Your task to perform on an android device: show emergency info Image 0: 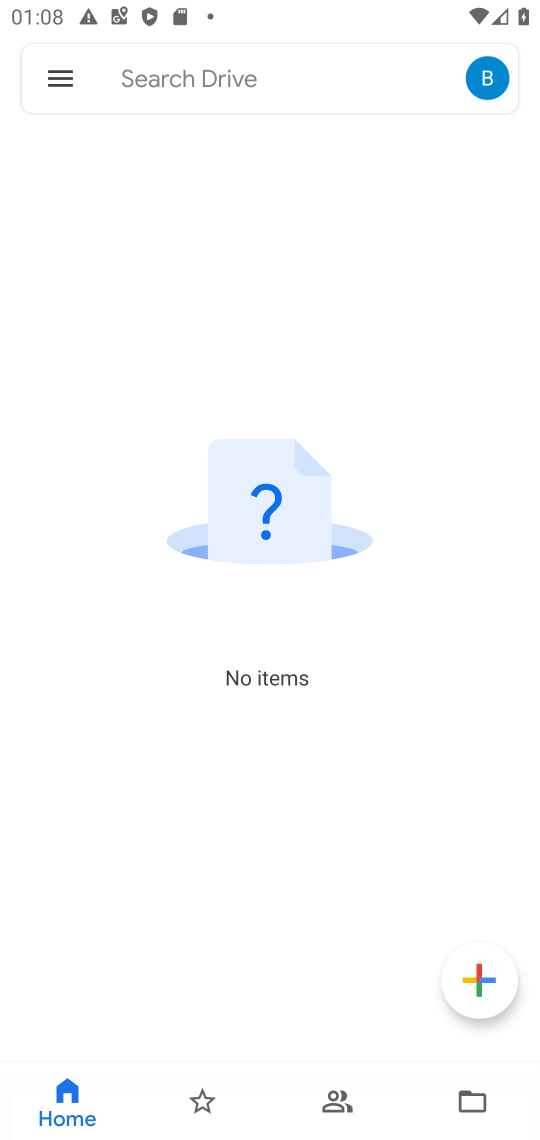
Step 0: press home button
Your task to perform on an android device: show emergency info Image 1: 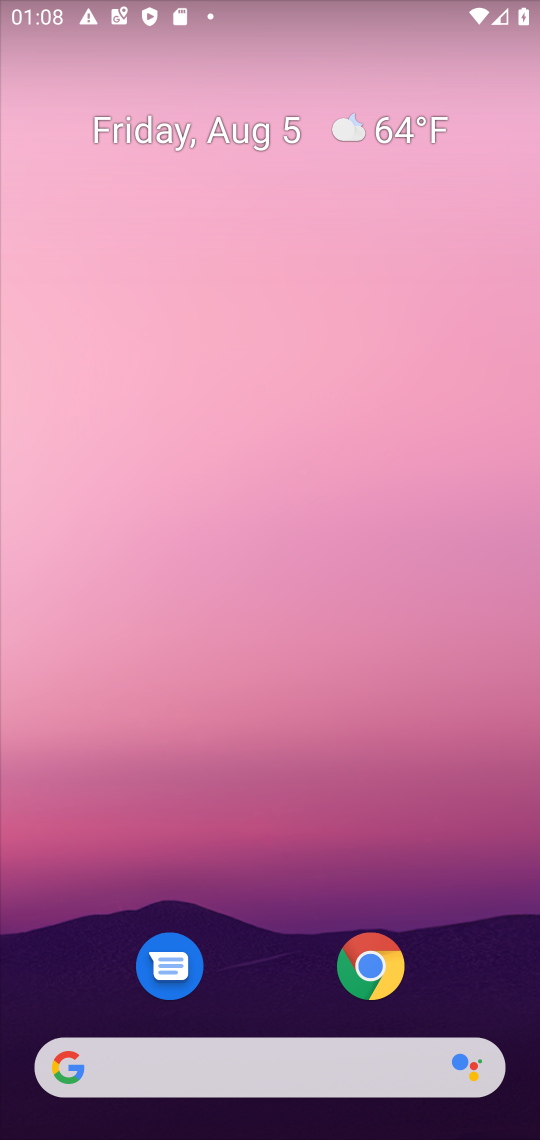
Step 1: drag from (266, 911) to (283, 56)
Your task to perform on an android device: show emergency info Image 2: 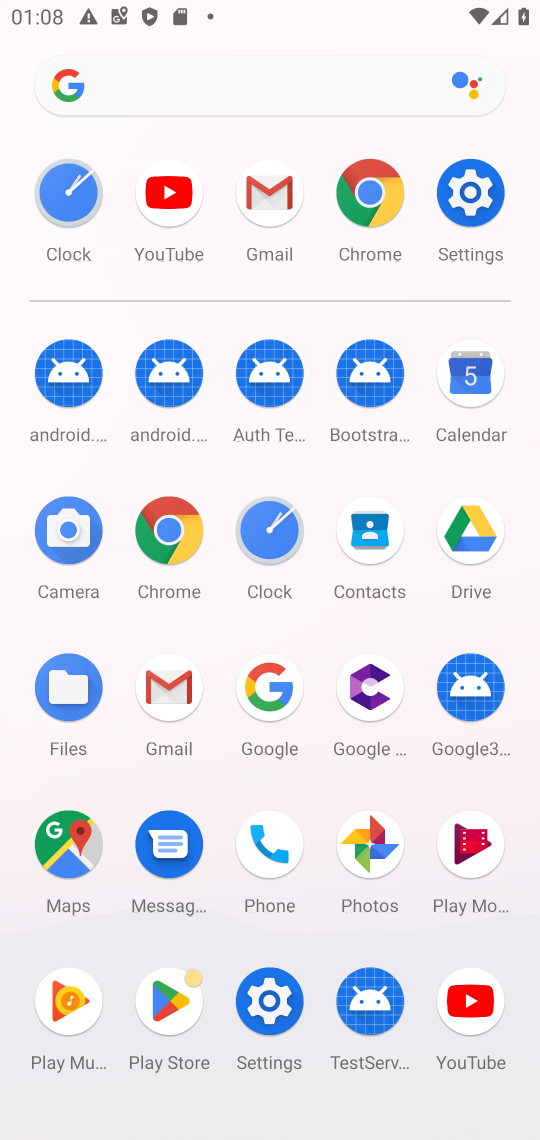
Step 2: click (461, 196)
Your task to perform on an android device: show emergency info Image 3: 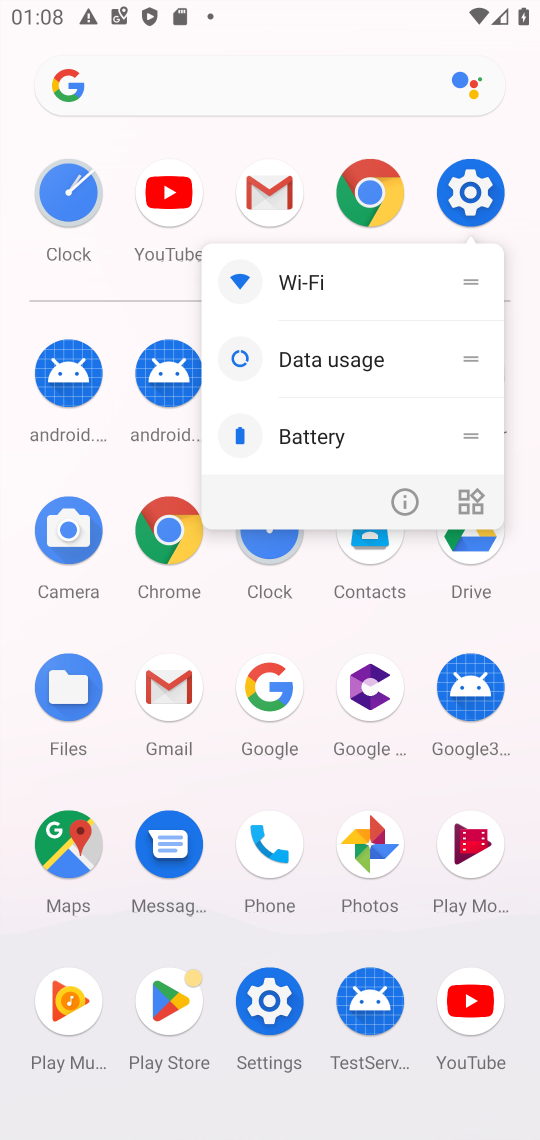
Step 3: click (466, 191)
Your task to perform on an android device: show emergency info Image 4: 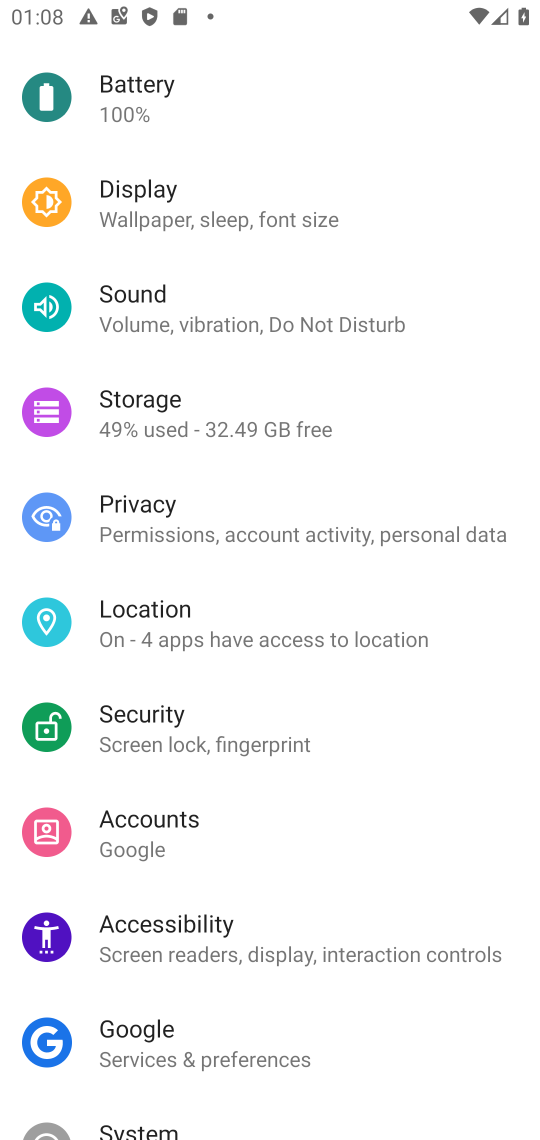
Step 4: drag from (324, 852) to (332, 297)
Your task to perform on an android device: show emergency info Image 5: 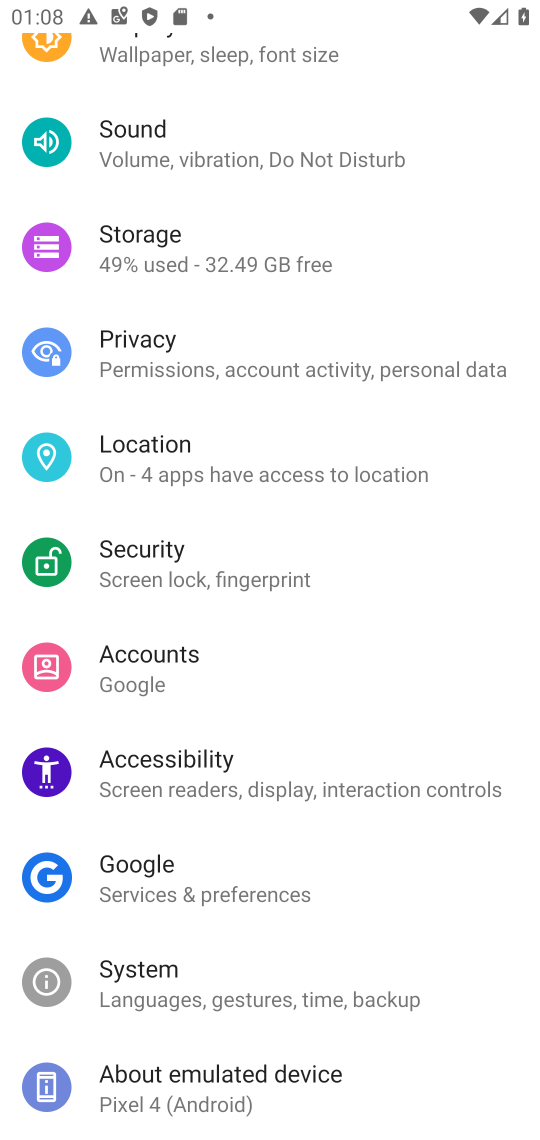
Step 5: click (260, 1077)
Your task to perform on an android device: show emergency info Image 6: 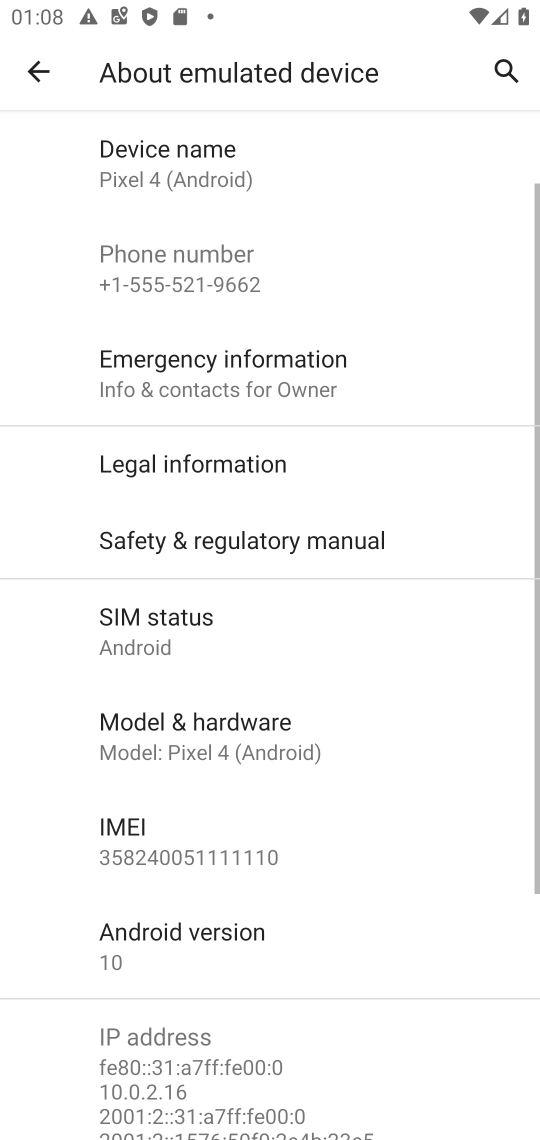
Step 6: click (281, 362)
Your task to perform on an android device: show emergency info Image 7: 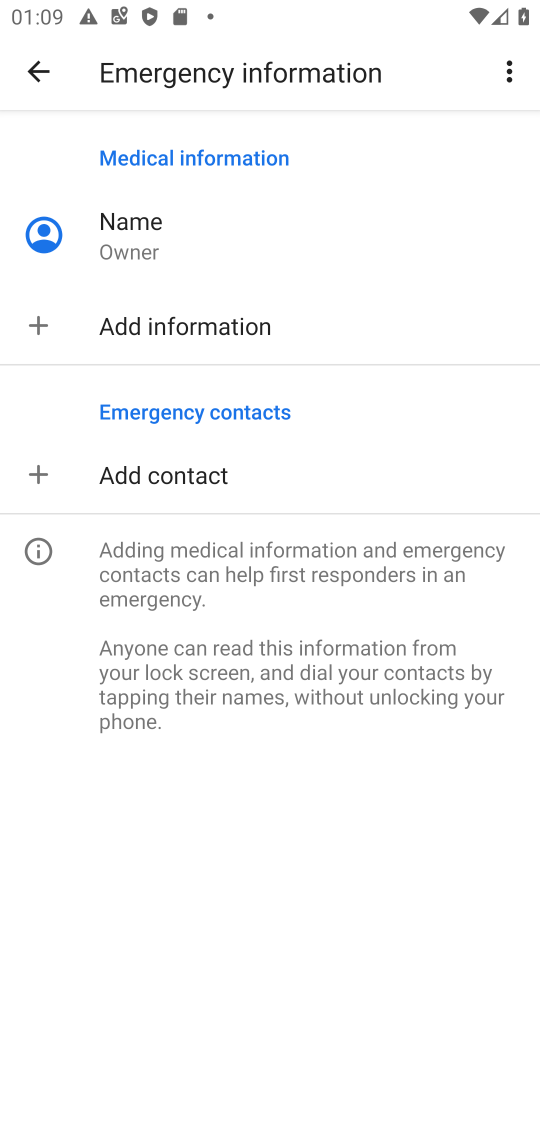
Step 7: task complete